Your task to perform on an android device: remove spam from my inbox in the gmail app Image 0: 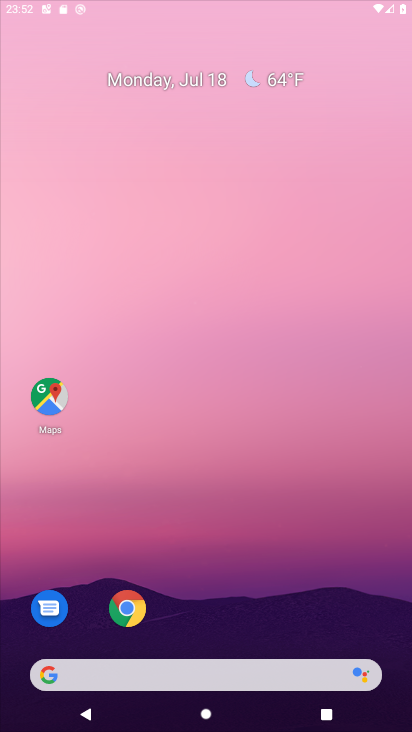
Step 0: drag from (232, 558) to (300, 111)
Your task to perform on an android device: remove spam from my inbox in the gmail app Image 1: 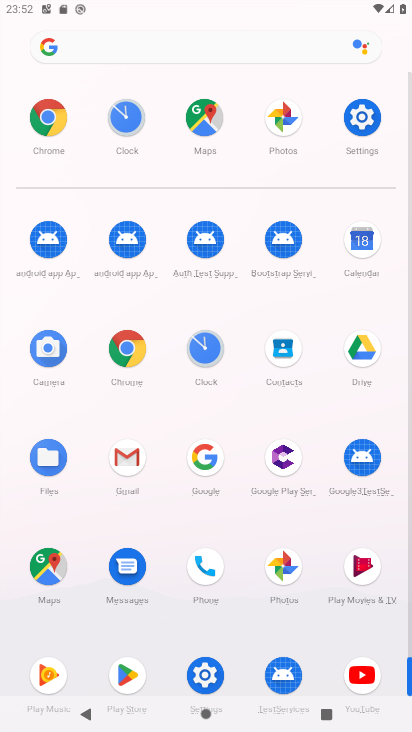
Step 1: click (130, 467)
Your task to perform on an android device: remove spam from my inbox in the gmail app Image 2: 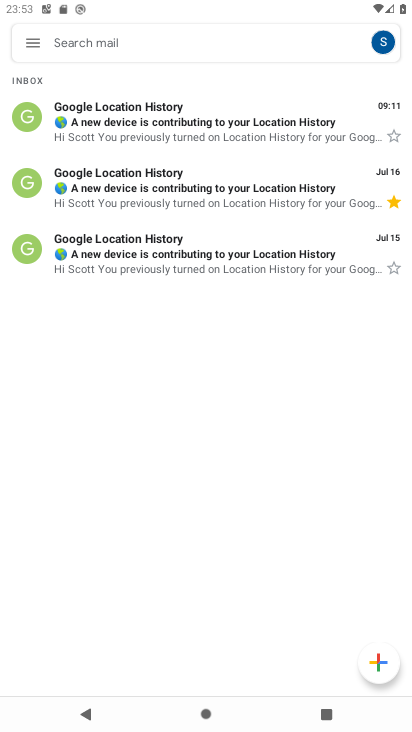
Step 2: click (141, 457)
Your task to perform on an android device: remove spam from my inbox in the gmail app Image 3: 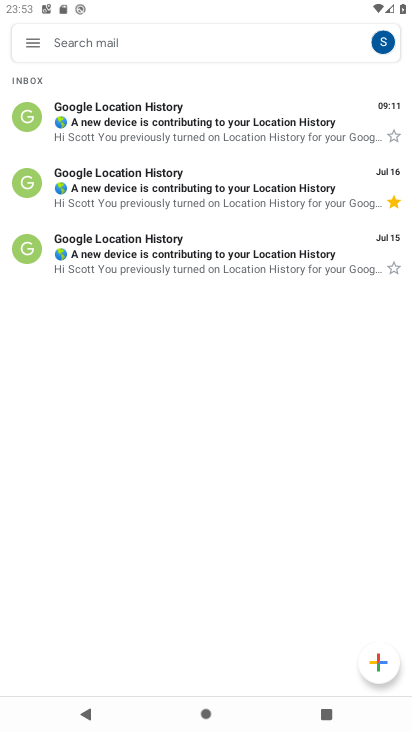
Step 3: click (35, 52)
Your task to perform on an android device: remove spam from my inbox in the gmail app Image 4: 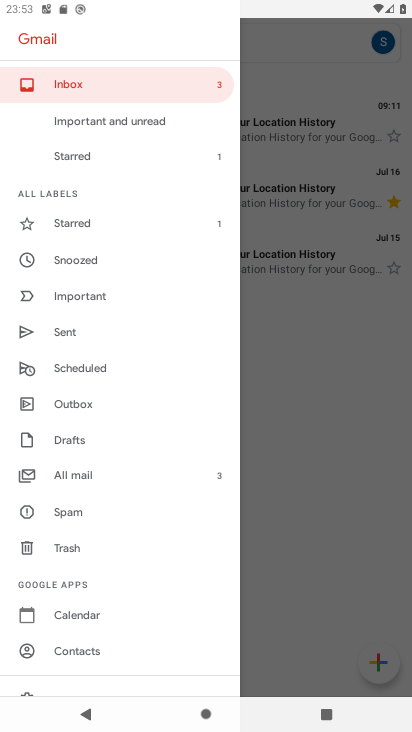
Step 4: click (97, 518)
Your task to perform on an android device: remove spam from my inbox in the gmail app Image 5: 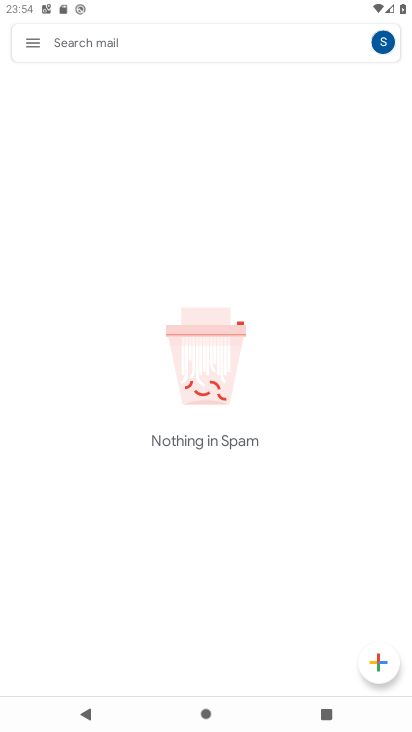
Step 5: task complete